Your task to perform on an android device: Open the calendar app, open the side menu, and click the "Day" option Image 0: 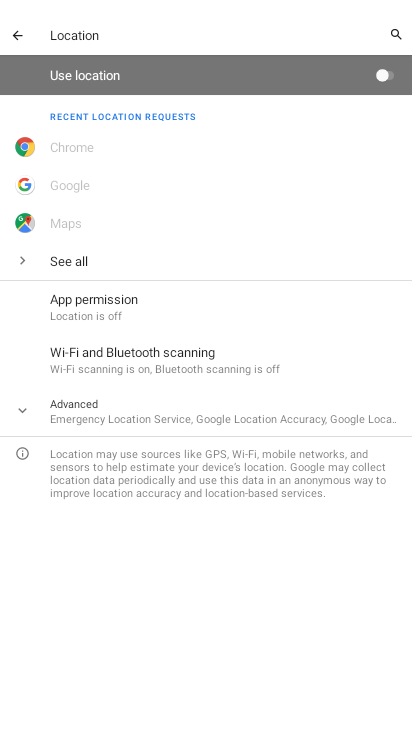
Step 0: press home button
Your task to perform on an android device: Open the calendar app, open the side menu, and click the "Day" option Image 1: 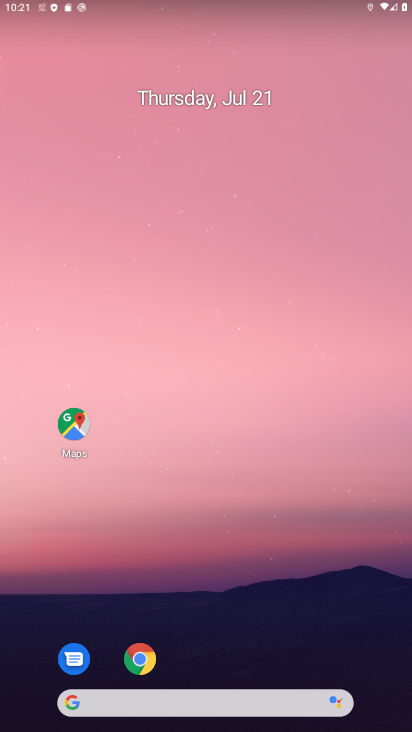
Step 1: drag from (247, 674) to (177, 120)
Your task to perform on an android device: Open the calendar app, open the side menu, and click the "Day" option Image 2: 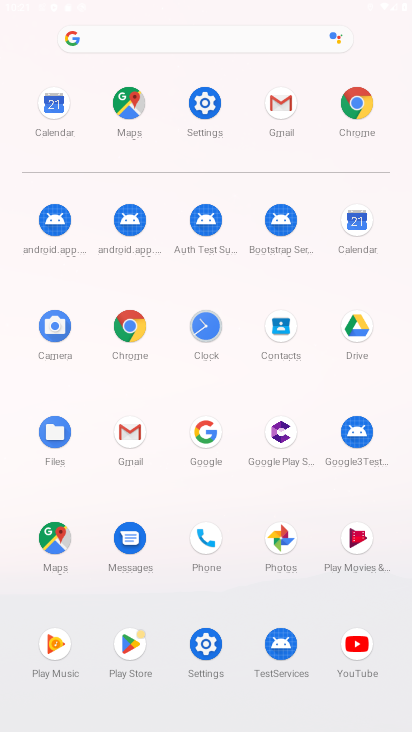
Step 2: click (341, 215)
Your task to perform on an android device: Open the calendar app, open the side menu, and click the "Day" option Image 3: 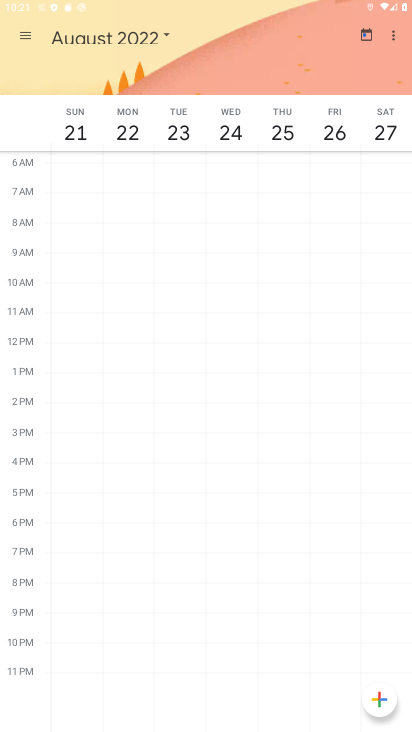
Step 3: click (22, 43)
Your task to perform on an android device: Open the calendar app, open the side menu, and click the "Day" option Image 4: 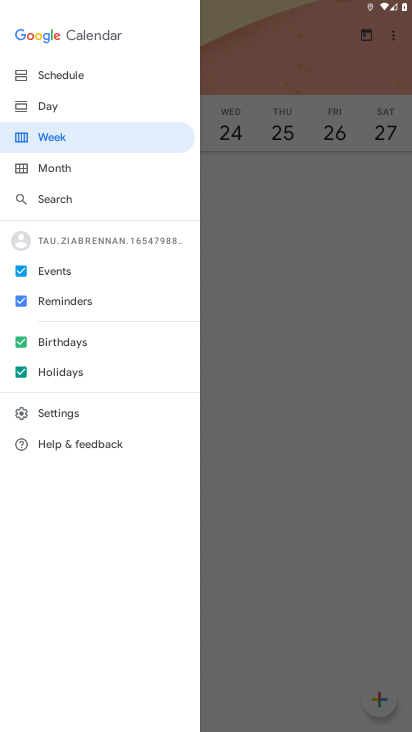
Step 4: click (67, 109)
Your task to perform on an android device: Open the calendar app, open the side menu, and click the "Day" option Image 5: 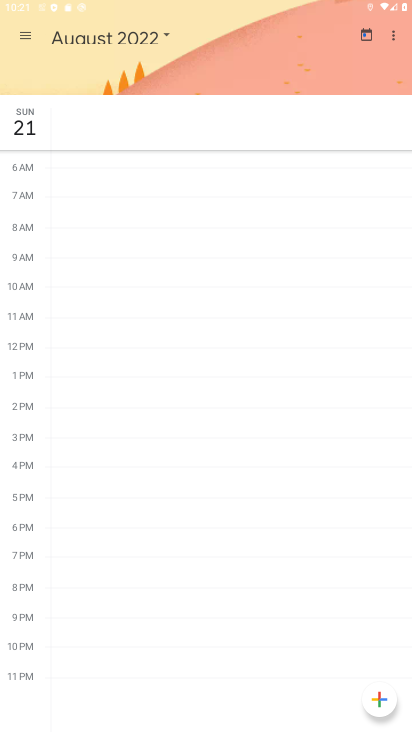
Step 5: task complete